Your task to perform on an android device: Open the stopwatch Image 0: 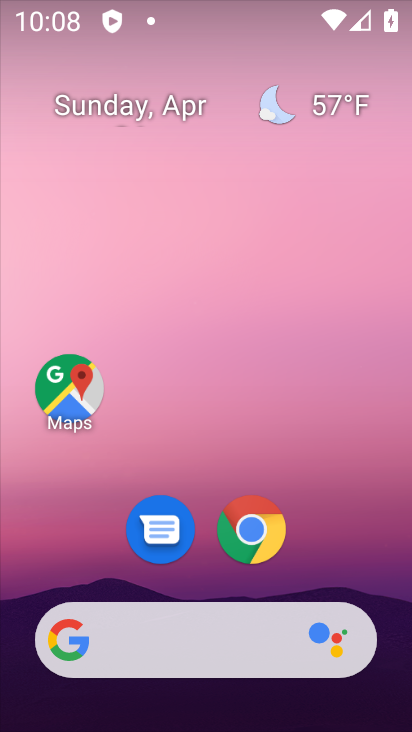
Step 0: drag from (346, 556) to (227, 94)
Your task to perform on an android device: Open the stopwatch Image 1: 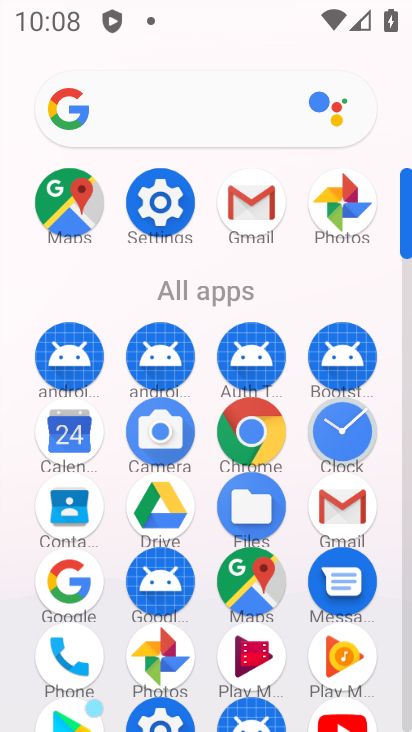
Step 1: click (346, 428)
Your task to perform on an android device: Open the stopwatch Image 2: 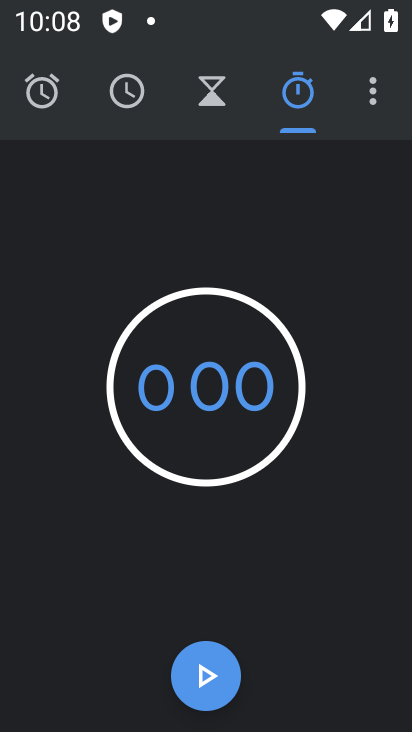
Step 2: task complete